Your task to perform on an android device: Show me popular games on the Play Store Image 0: 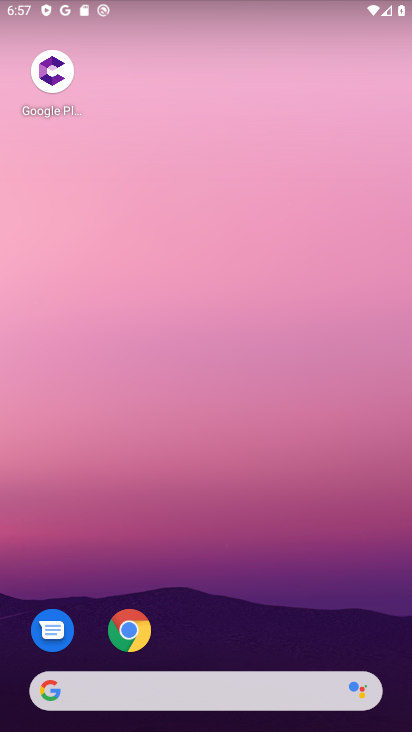
Step 0: drag from (287, 615) to (231, 29)
Your task to perform on an android device: Show me popular games on the Play Store Image 1: 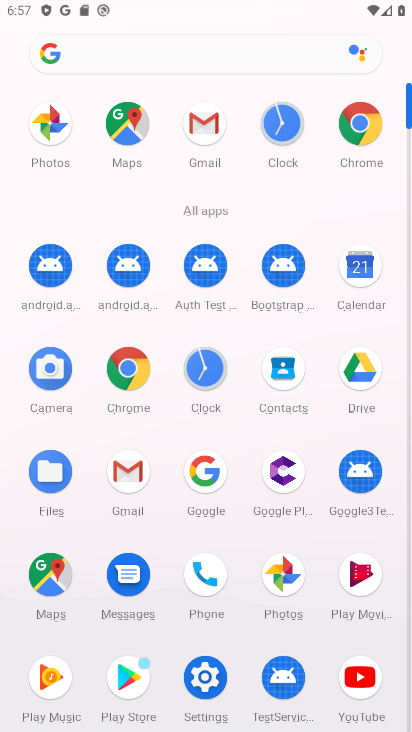
Step 1: click (132, 677)
Your task to perform on an android device: Show me popular games on the Play Store Image 2: 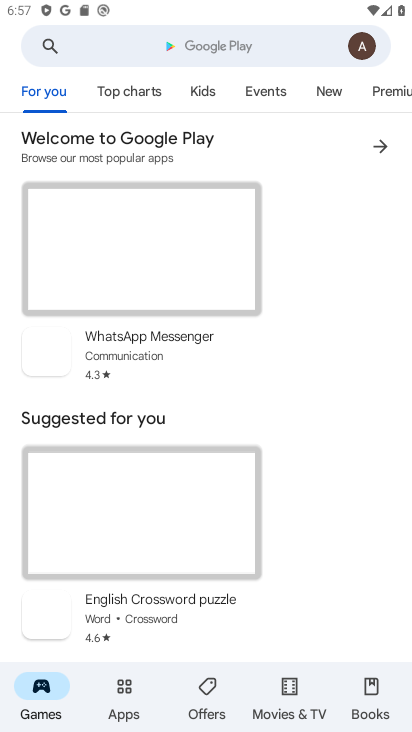
Step 2: click (180, 39)
Your task to perform on an android device: Show me popular games on the Play Store Image 3: 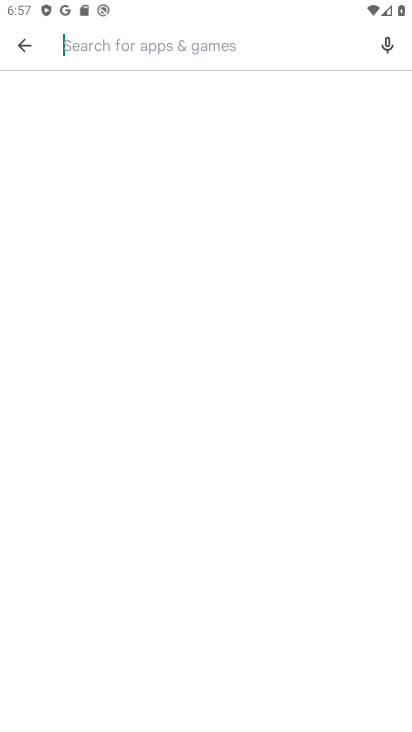
Step 3: click (180, 39)
Your task to perform on an android device: Show me popular games on the Play Store Image 4: 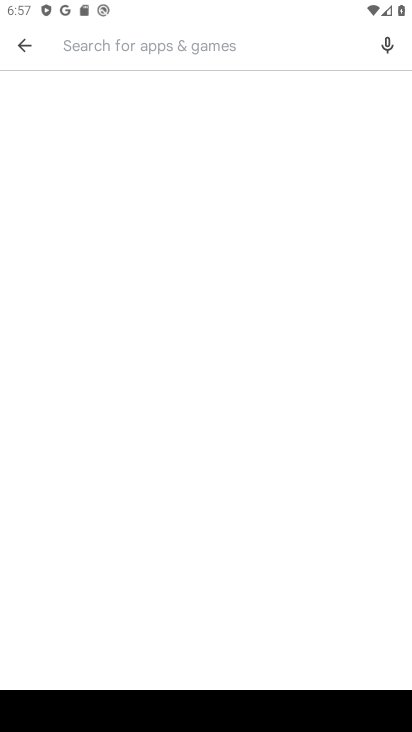
Step 4: type " popular games "
Your task to perform on an android device: Show me popular games on the Play Store Image 5: 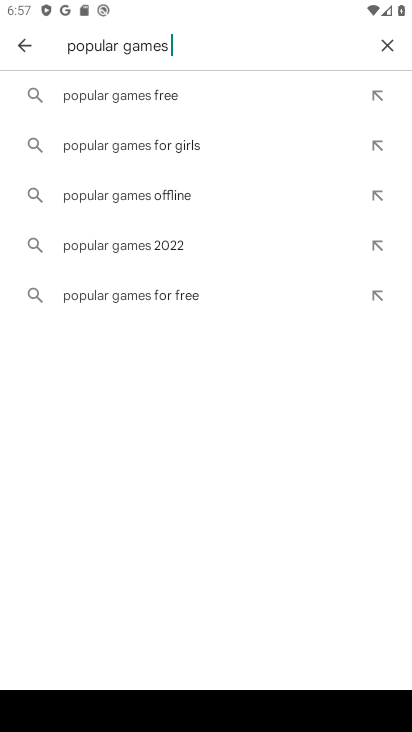
Step 5: press enter
Your task to perform on an android device: Show me popular games on the Play Store Image 6: 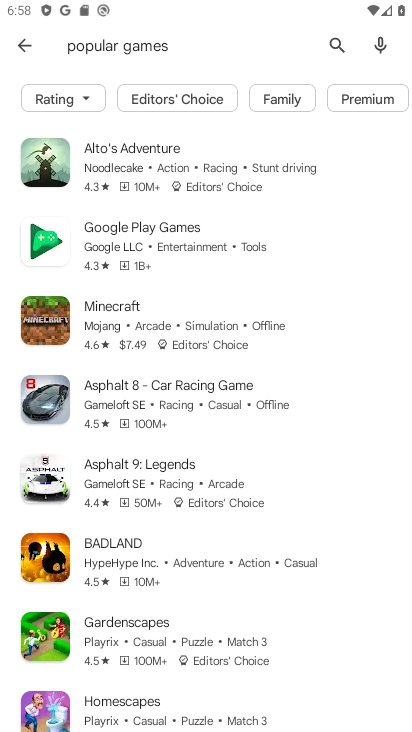
Step 6: task complete